Your task to perform on an android device: Is it going to rain tomorrow? Image 0: 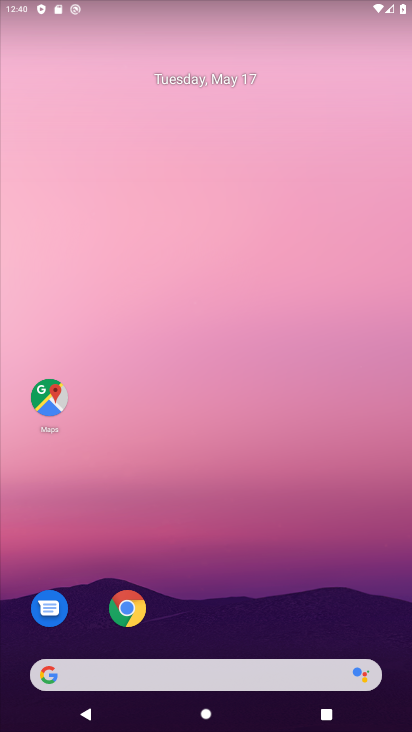
Step 0: click (218, 680)
Your task to perform on an android device: Is it going to rain tomorrow? Image 1: 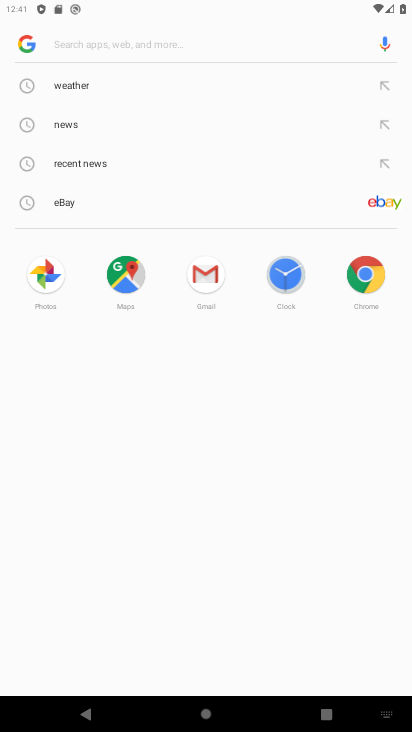
Step 1: click (89, 93)
Your task to perform on an android device: Is it going to rain tomorrow? Image 2: 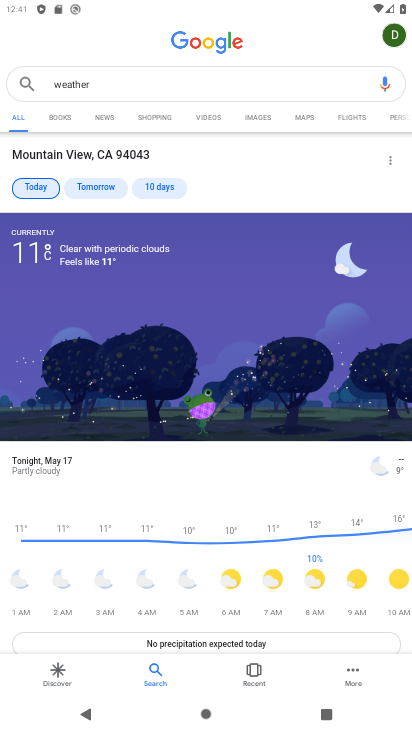
Step 2: click (101, 179)
Your task to perform on an android device: Is it going to rain tomorrow? Image 3: 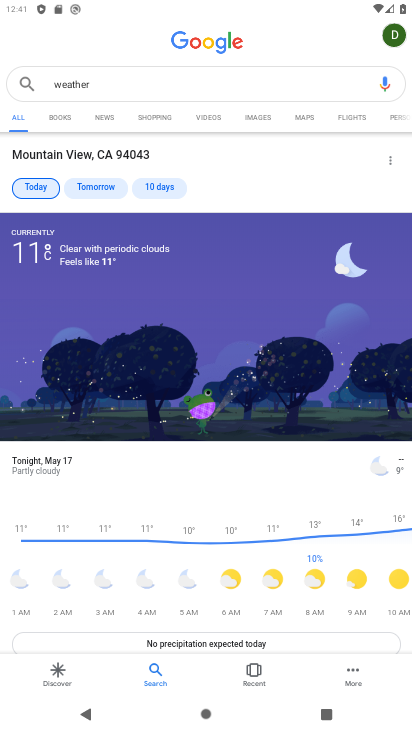
Step 3: click (94, 192)
Your task to perform on an android device: Is it going to rain tomorrow? Image 4: 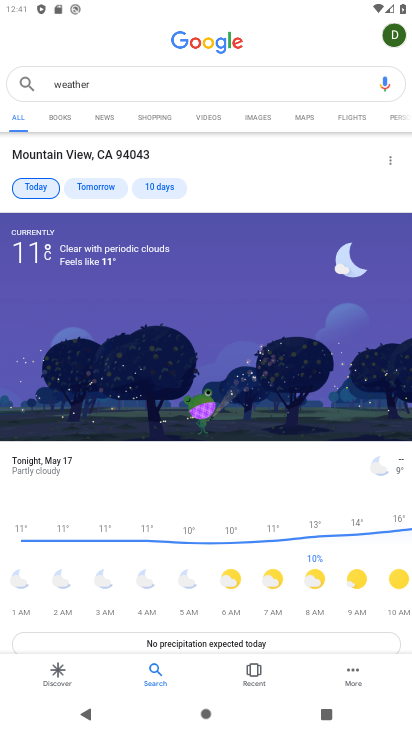
Step 4: drag from (109, 629) to (174, 352)
Your task to perform on an android device: Is it going to rain tomorrow? Image 5: 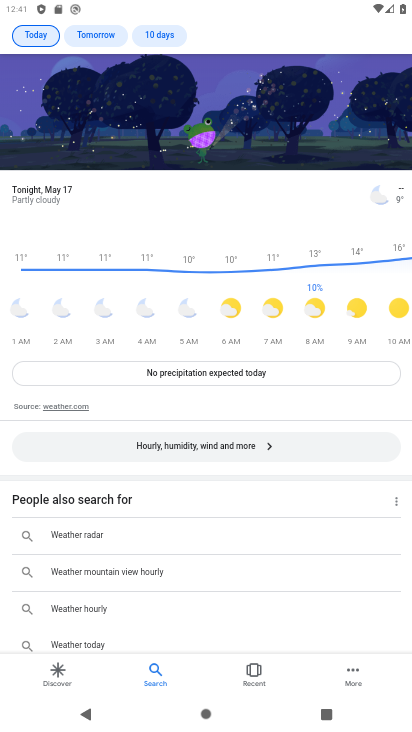
Step 5: click (61, 409)
Your task to perform on an android device: Is it going to rain tomorrow? Image 6: 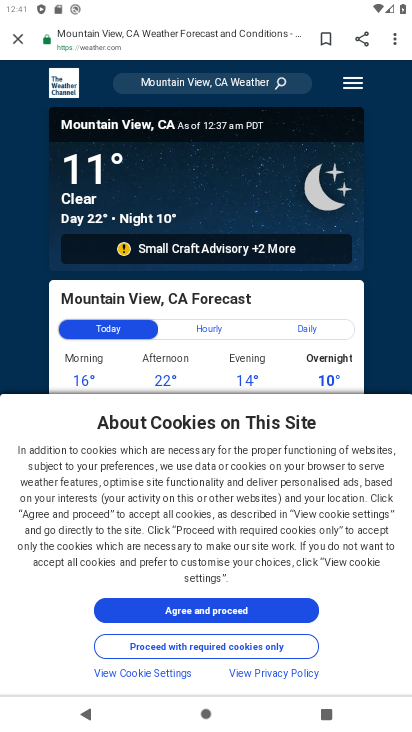
Step 6: click (176, 615)
Your task to perform on an android device: Is it going to rain tomorrow? Image 7: 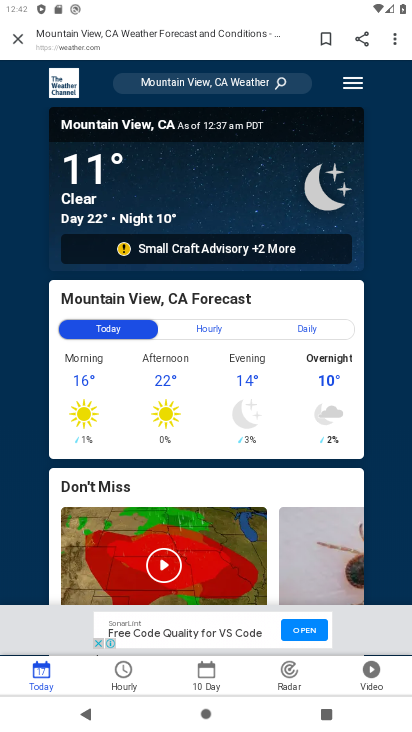
Step 7: click (207, 686)
Your task to perform on an android device: Is it going to rain tomorrow? Image 8: 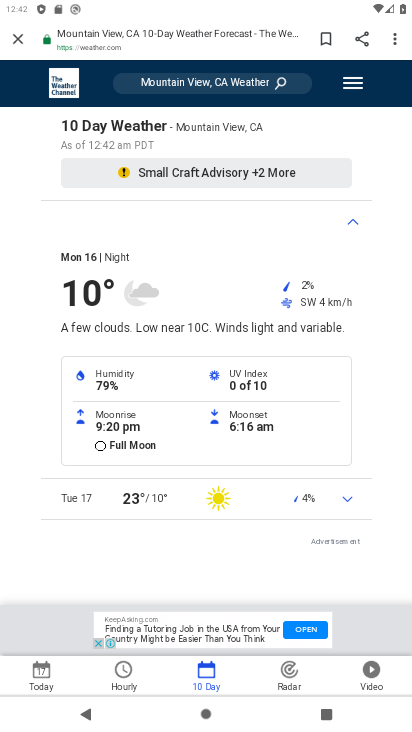
Step 8: click (140, 503)
Your task to perform on an android device: Is it going to rain tomorrow? Image 9: 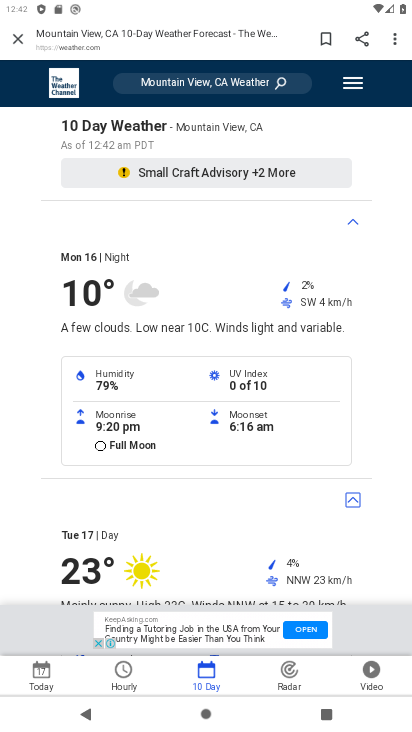
Step 9: task complete